Your task to perform on an android device: turn on improve location accuracy Image 0: 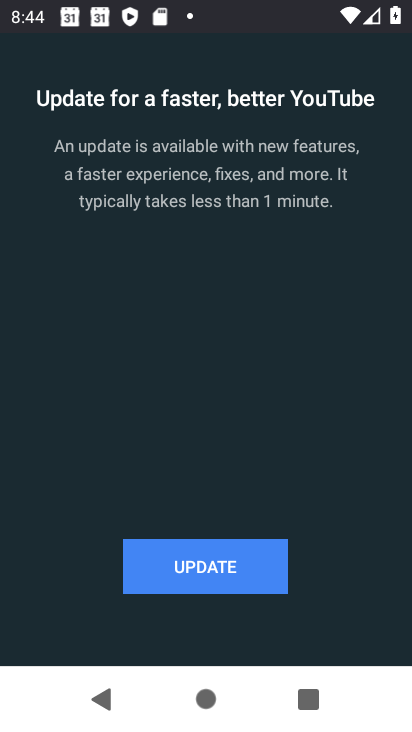
Step 0: press home button
Your task to perform on an android device: turn on improve location accuracy Image 1: 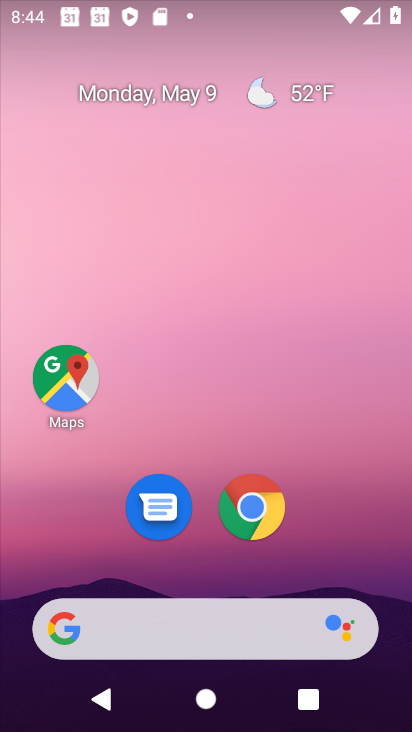
Step 1: drag from (324, 532) to (252, 28)
Your task to perform on an android device: turn on improve location accuracy Image 2: 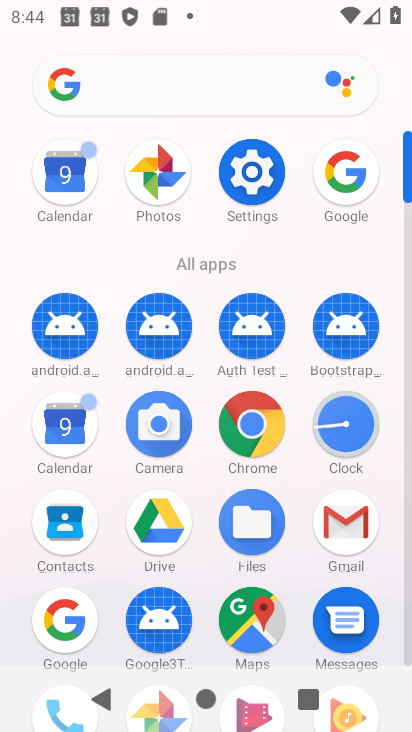
Step 2: click (249, 171)
Your task to perform on an android device: turn on improve location accuracy Image 3: 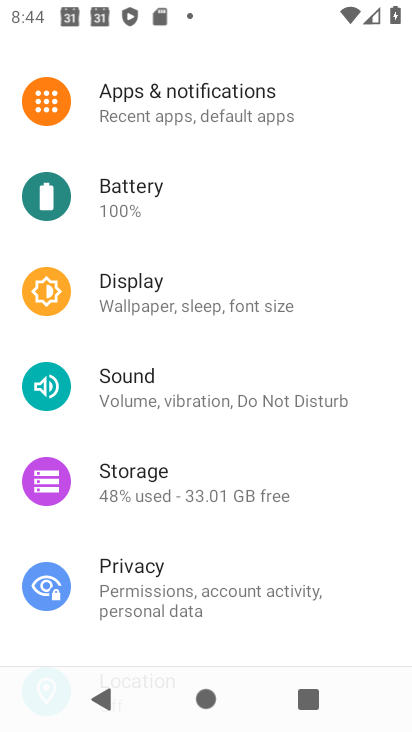
Step 3: drag from (200, 420) to (207, 319)
Your task to perform on an android device: turn on improve location accuracy Image 4: 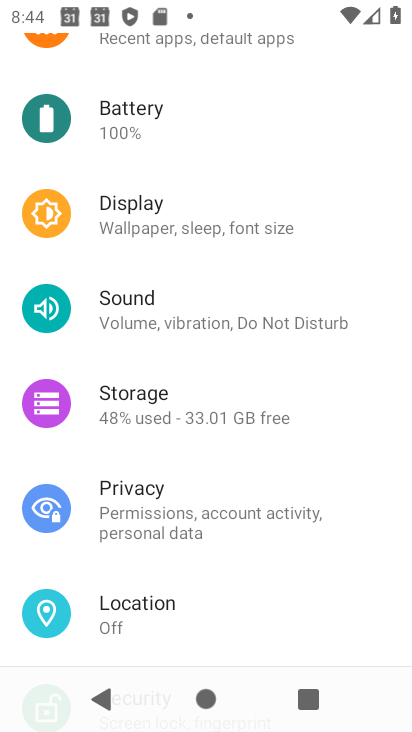
Step 4: drag from (225, 539) to (288, 371)
Your task to perform on an android device: turn on improve location accuracy Image 5: 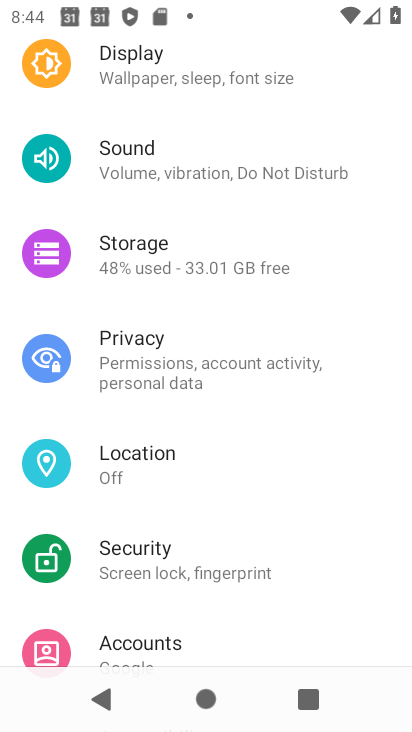
Step 5: click (149, 454)
Your task to perform on an android device: turn on improve location accuracy Image 6: 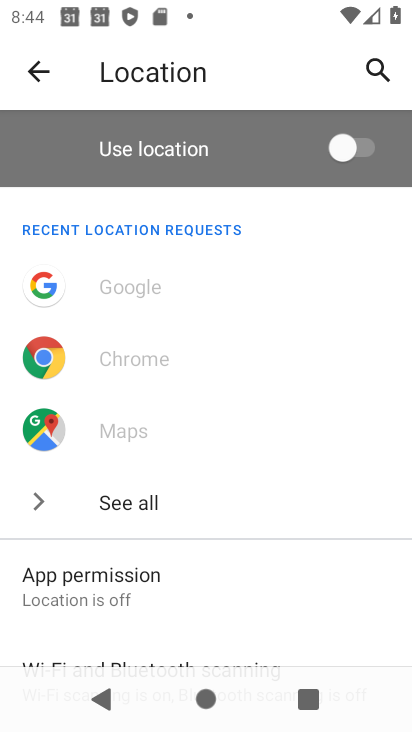
Step 6: drag from (195, 591) to (251, 436)
Your task to perform on an android device: turn on improve location accuracy Image 7: 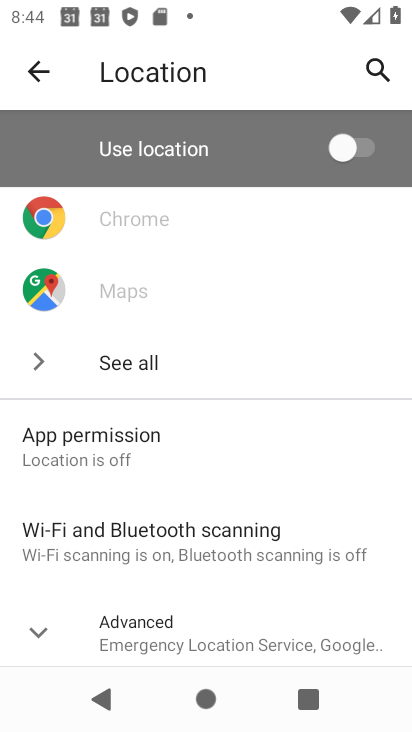
Step 7: click (193, 643)
Your task to perform on an android device: turn on improve location accuracy Image 8: 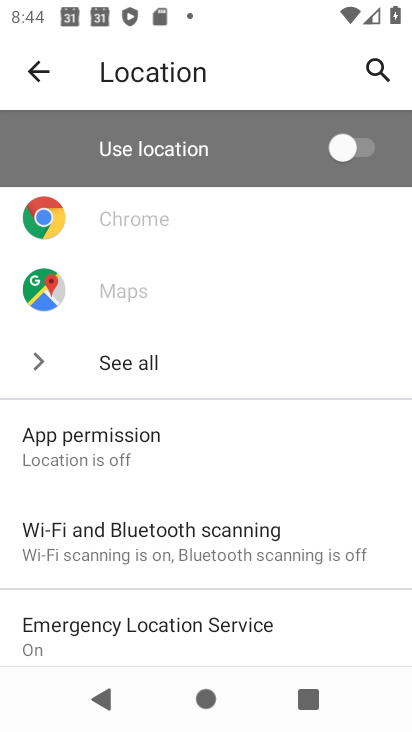
Step 8: drag from (157, 601) to (243, 430)
Your task to perform on an android device: turn on improve location accuracy Image 9: 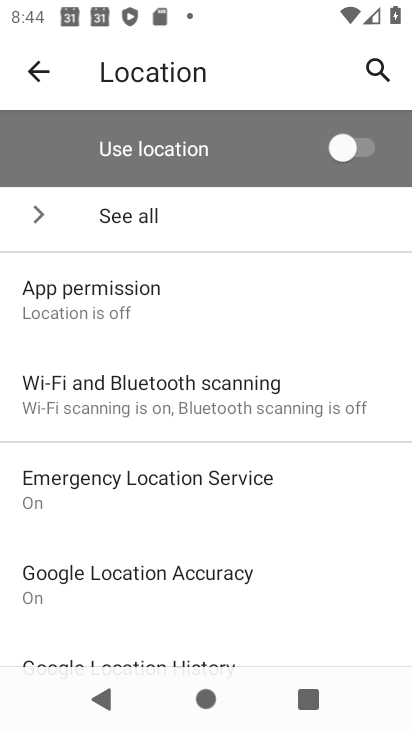
Step 9: drag from (130, 598) to (243, 449)
Your task to perform on an android device: turn on improve location accuracy Image 10: 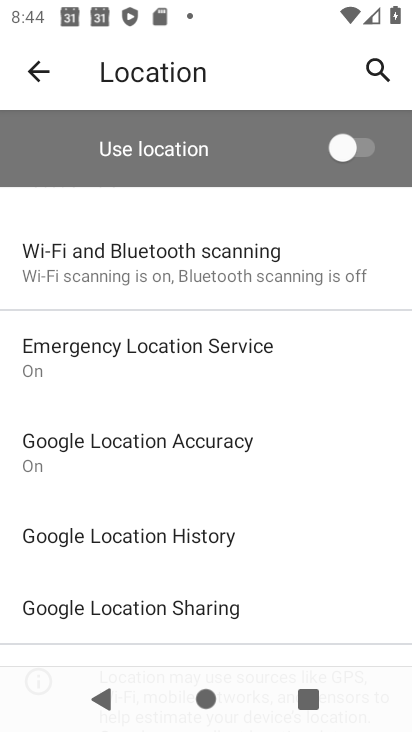
Step 10: click (204, 441)
Your task to perform on an android device: turn on improve location accuracy Image 11: 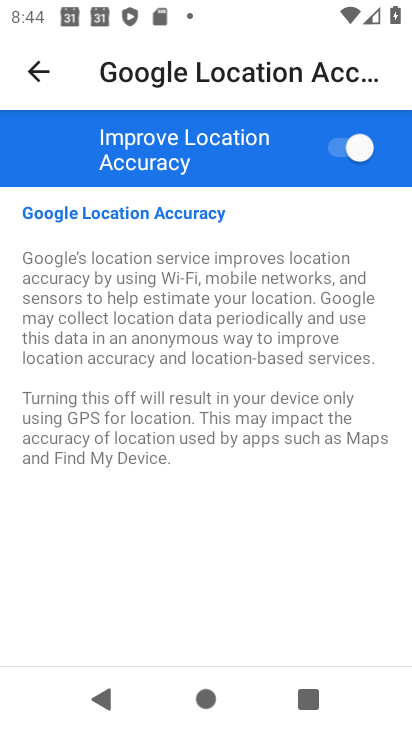
Step 11: task complete